Your task to perform on an android device: turn on airplane mode Image 0: 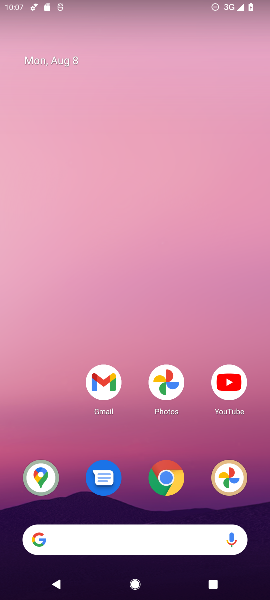
Step 0: drag from (133, 513) to (115, 61)
Your task to perform on an android device: turn on airplane mode Image 1: 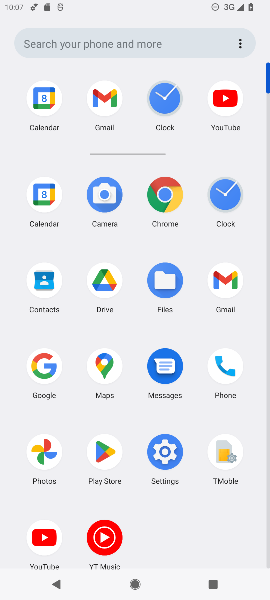
Step 1: click (163, 457)
Your task to perform on an android device: turn on airplane mode Image 2: 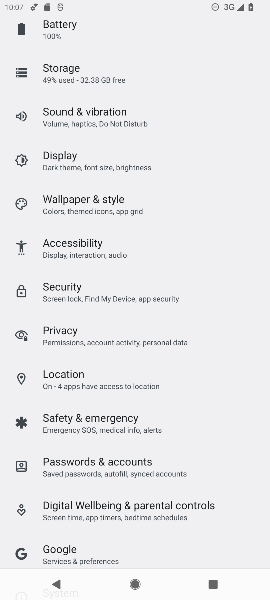
Step 2: drag from (102, 88) to (57, 460)
Your task to perform on an android device: turn on airplane mode Image 3: 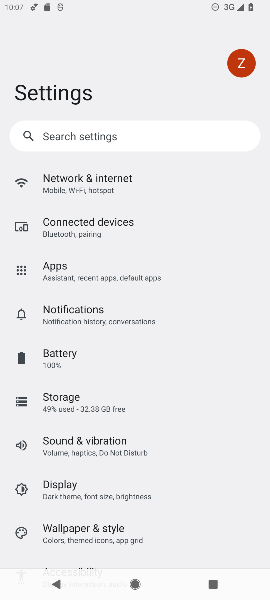
Step 3: click (79, 185)
Your task to perform on an android device: turn on airplane mode Image 4: 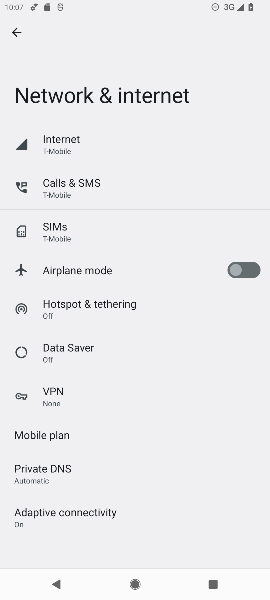
Step 4: click (247, 270)
Your task to perform on an android device: turn on airplane mode Image 5: 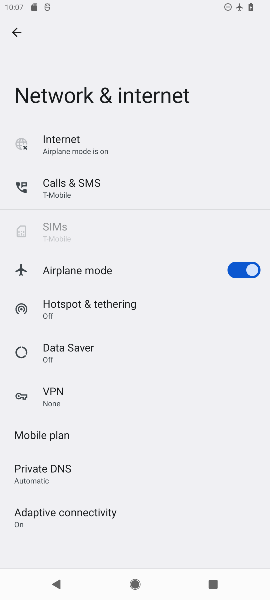
Step 5: task complete